Your task to perform on an android device: Open maps Image 0: 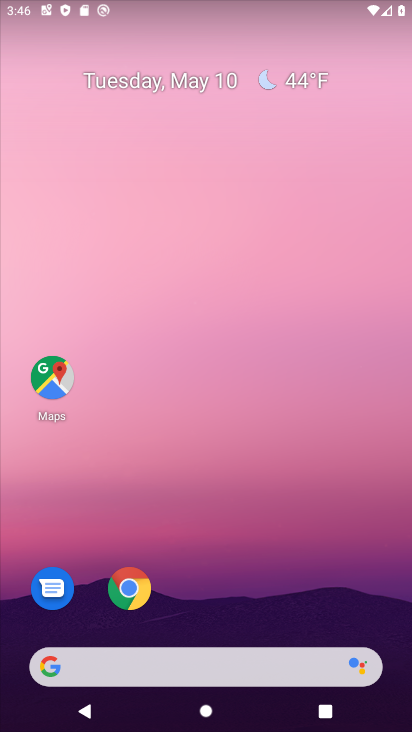
Step 0: click (53, 380)
Your task to perform on an android device: Open maps Image 1: 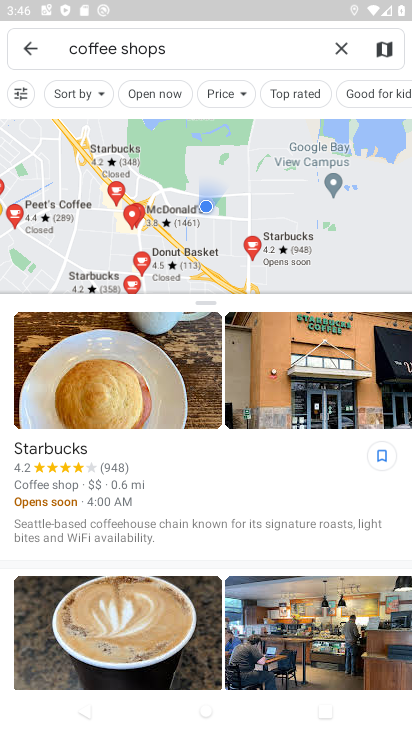
Step 1: click (29, 51)
Your task to perform on an android device: Open maps Image 2: 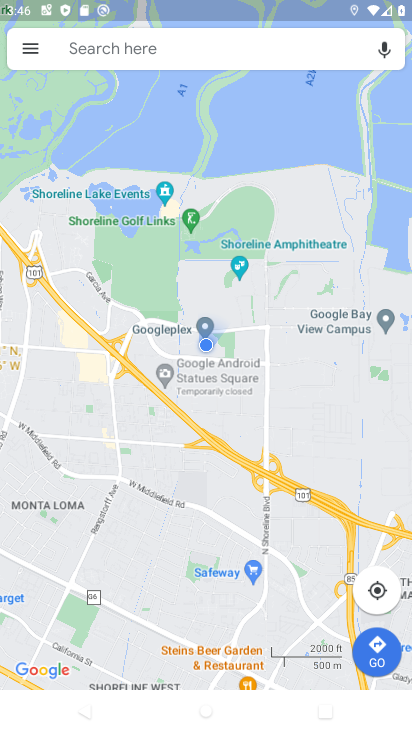
Step 2: task complete